Your task to perform on an android device: toggle notifications settings in the gmail app Image 0: 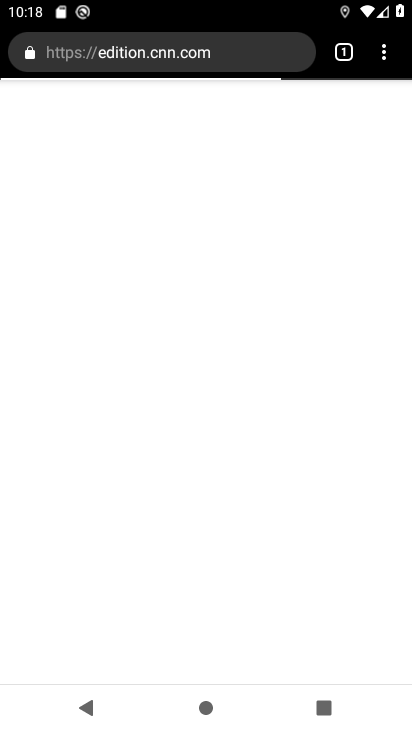
Step 0: press home button
Your task to perform on an android device: toggle notifications settings in the gmail app Image 1: 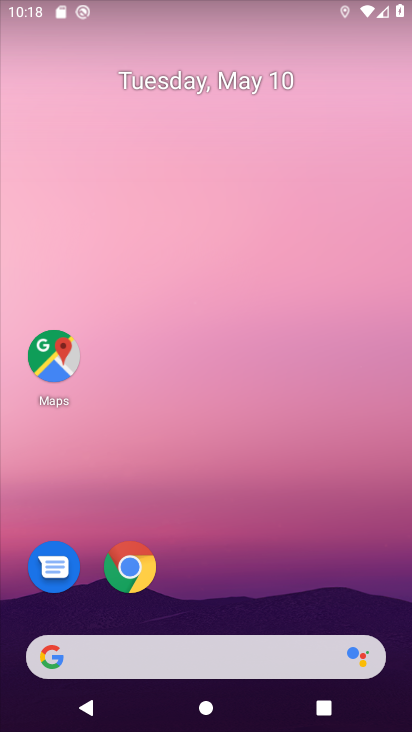
Step 1: drag from (201, 516) to (282, 5)
Your task to perform on an android device: toggle notifications settings in the gmail app Image 2: 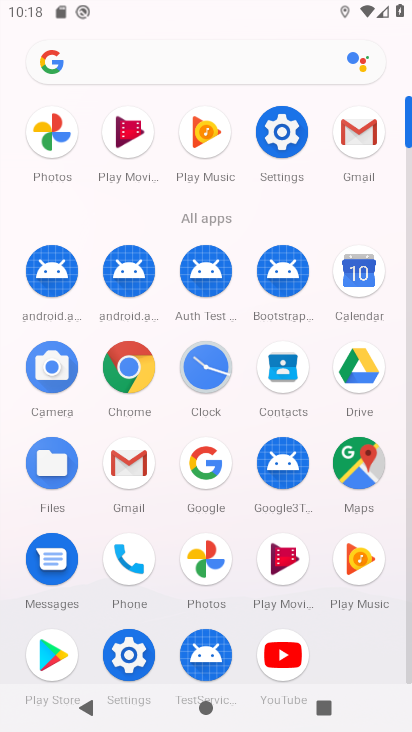
Step 2: click (374, 123)
Your task to perform on an android device: toggle notifications settings in the gmail app Image 3: 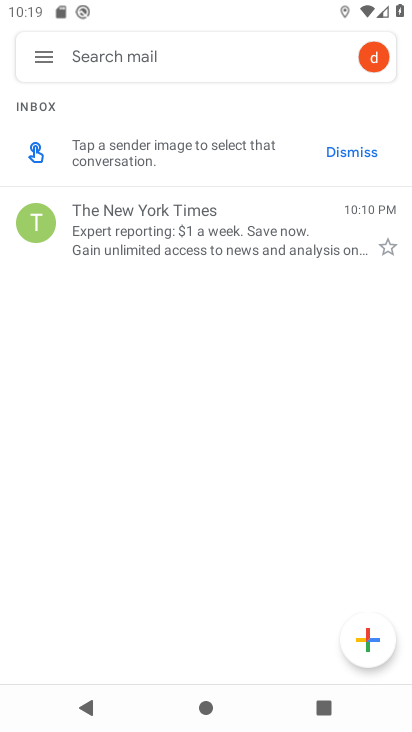
Step 3: click (50, 48)
Your task to perform on an android device: toggle notifications settings in the gmail app Image 4: 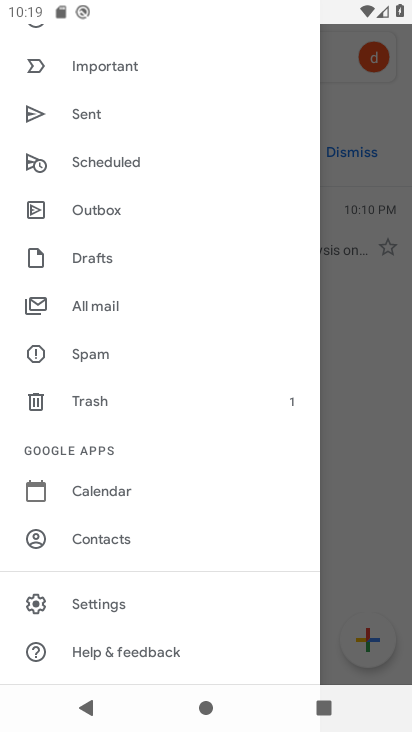
Step 4: click (120, 606)
Your task to perform on an android device: toggle notifications settings in the gmail app Image 5: 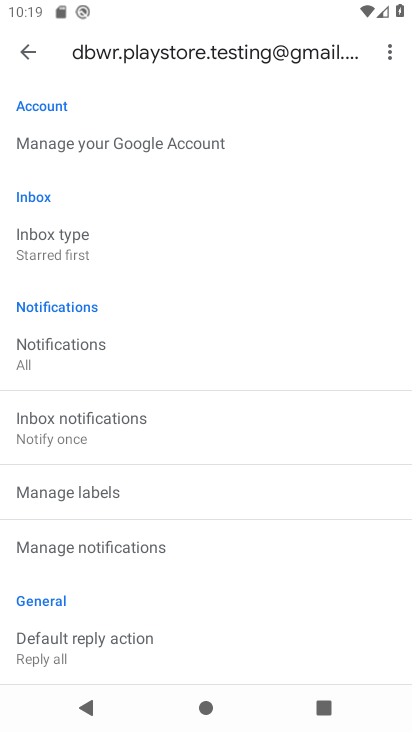
Step 5: drag from (151, 590) to (180, 319)
Your task to perform on an android device: toggle notifications settings in the gmail app Image 6: 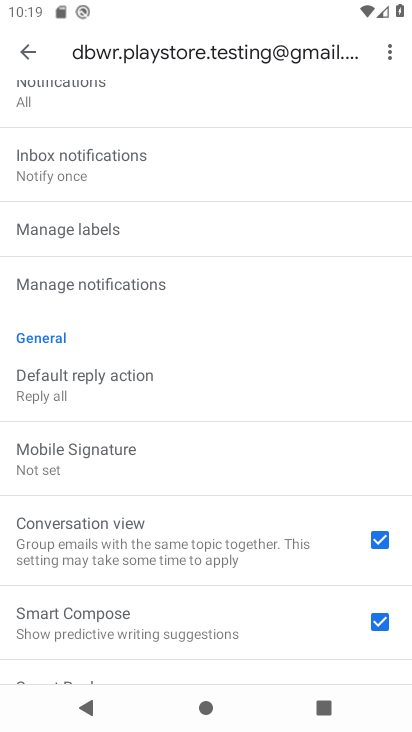
Step 6: click (145, 293)
Your task to perform on an android device: toggle notifications settings in the gmail app Image 7: 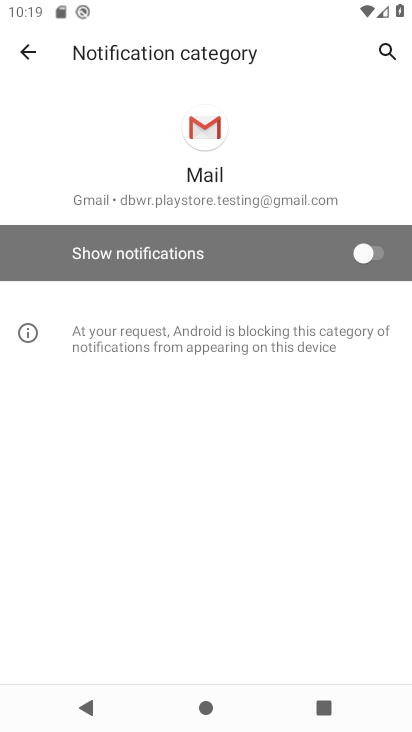
Step 7: click (364, 258)
Your task to perform on an android device: toggle notifications settings in the gmail app Image 8: 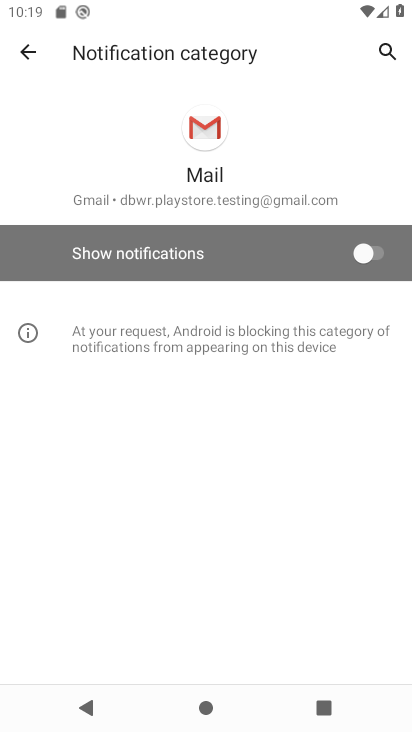
Step 8: click (354, 259)
Your task to perform on an android device: toggle notifications settings in the gmail app Image 9: 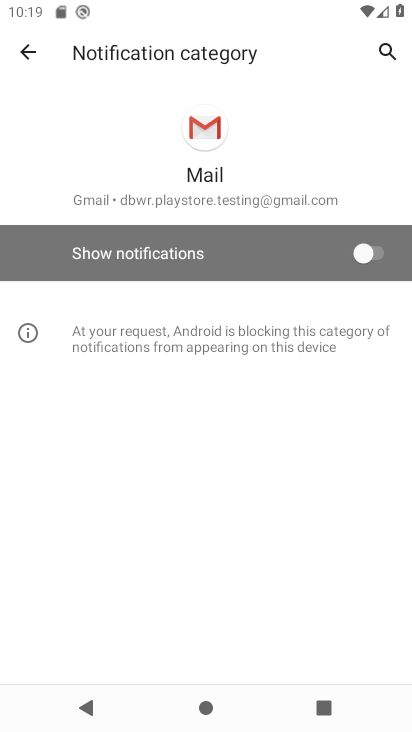
Step 9: click (354, 259)
Your task to perform on an android device: toggle notifications settings in the gmail app Image 10: 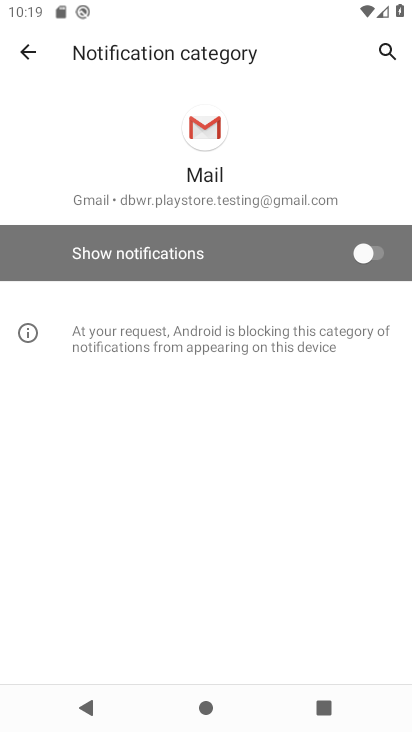
Step 10: click (354, 259)
Your task to perform on an android device: toggle notifications settings in the gmail app Image 11: 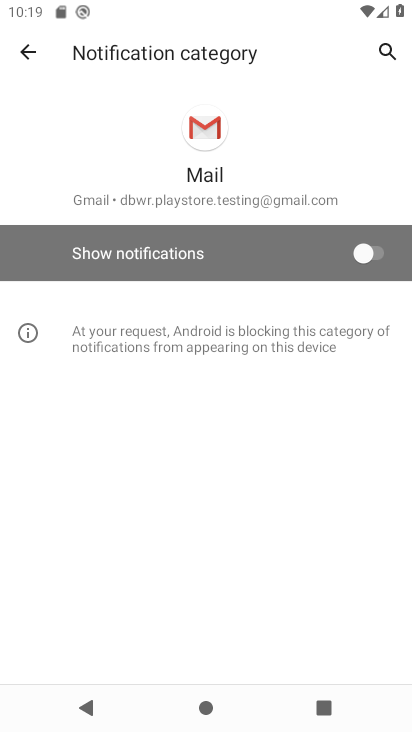
Step 11: click (370, 251)
Your task to perform on an android device: toggle notifications settings in the gmail app Image 12: 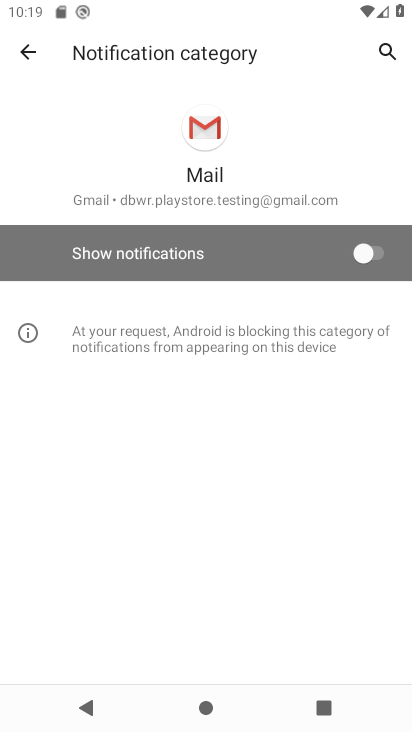
Step 12: click (370, 251)
Your task to perform on an android device: toggle notifications settings in the gmail app Image 13: 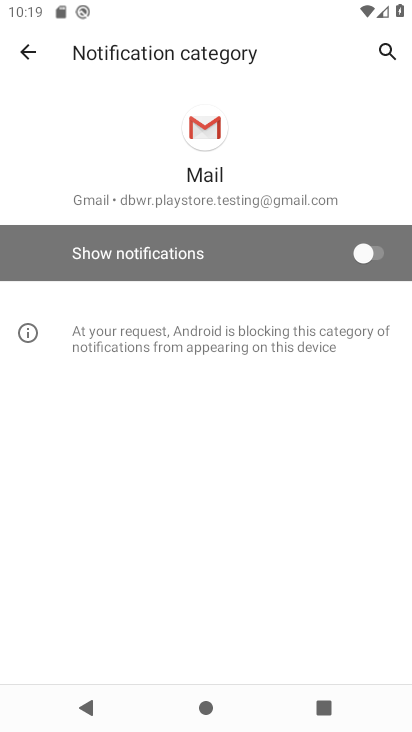
Step 13: click (370, 251)
Your task to perform on an android device: toggle notifications settings in the gmail app Image 14: 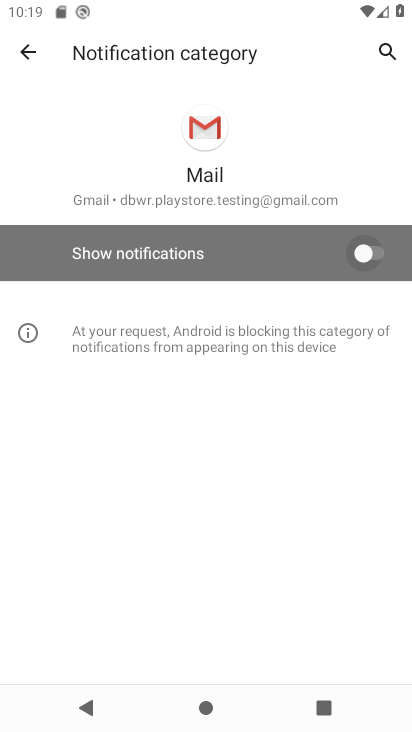
Step 14: click (370, 251)
Your task to perform on an android device: toggle notifications settings in the gmail app Image 15: 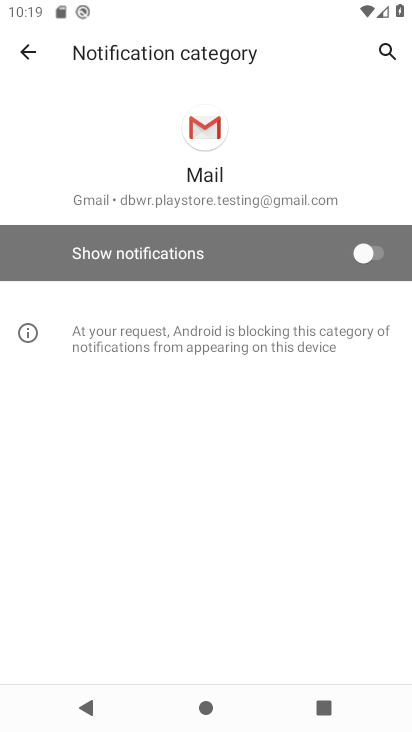
Step 15: task complete